Your task to perform on an android device: Open accessibility settings Image 0: 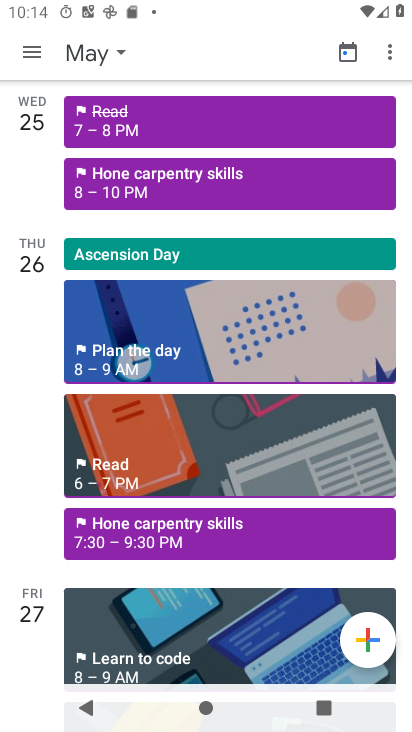
Step 0: press home button
Your task to perform on an android device: Open accessibility settings Image 1: 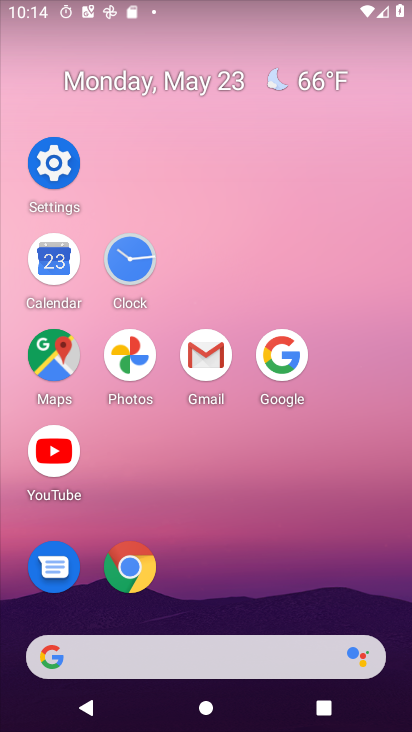
Step 1: click (52, 145)
Your task to perform on an android device: Open accessibility settings Image 2: 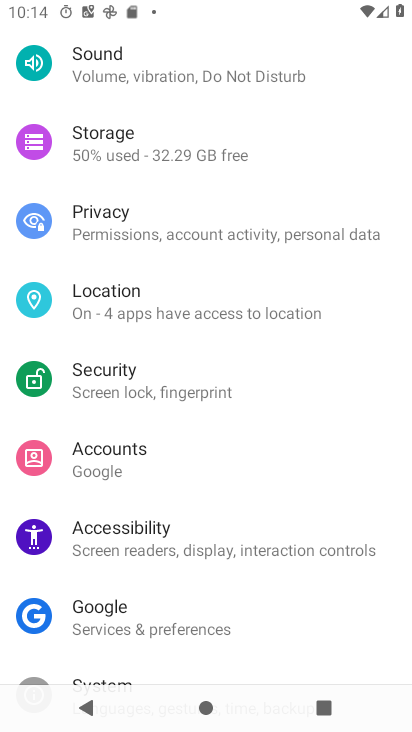
Step 2: click (240, 537)
Your task to perform on an android device: Open accessibility settings Image 3: 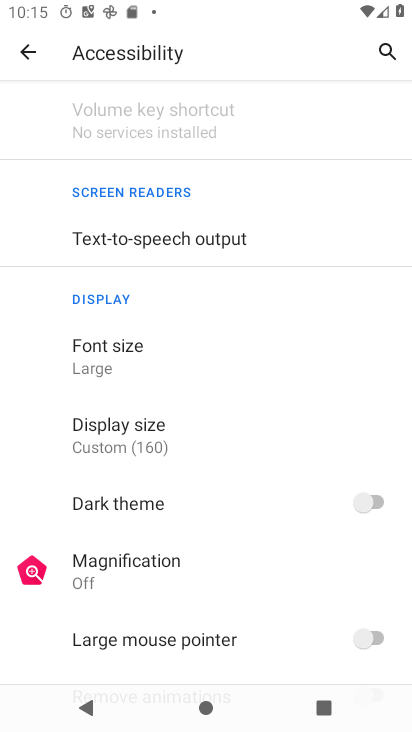
Step 3: task complete